Your task to perform on an android device: Open calendar and show me the fourth week of next month Image 0: 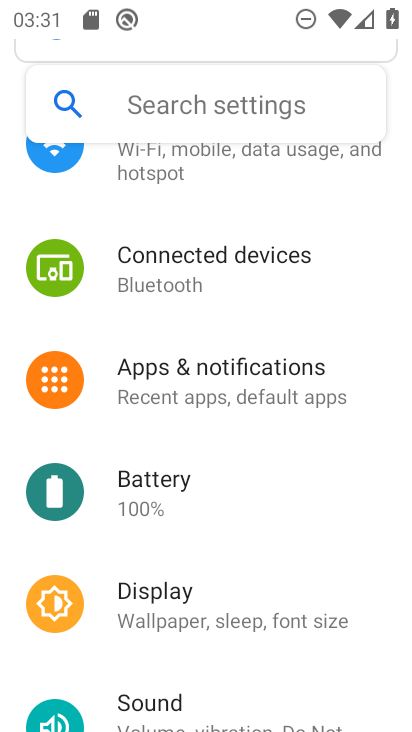
Step 0: press home button
Your task to perform on an android device: Open calendar and show me the fourth week of next month Image 1: 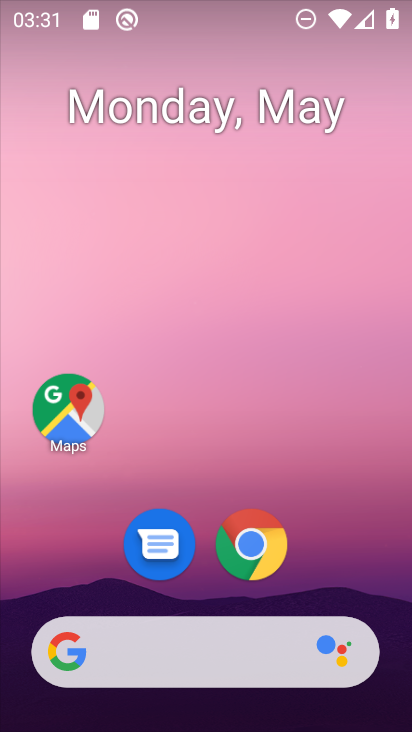
Step 1: drag from (367, 582) to (342, 211)
Your task to perform on an android device: Open calendar and show me the fourth week of next month Image 2: 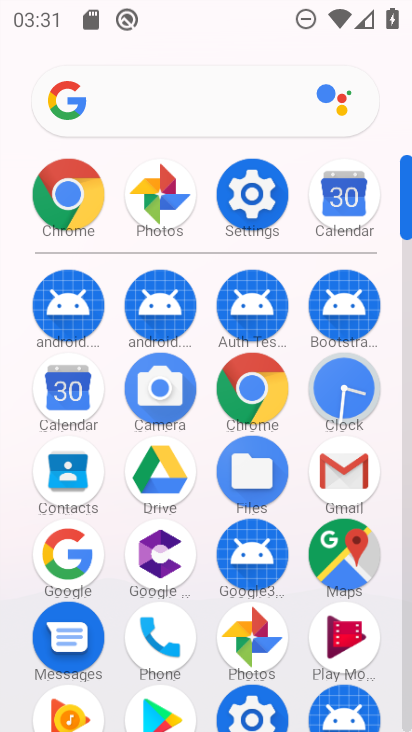
Step 2: click (86, 402)
Your task to perform on an android device: Open calendar and show me the fourth week of next month Image 3: 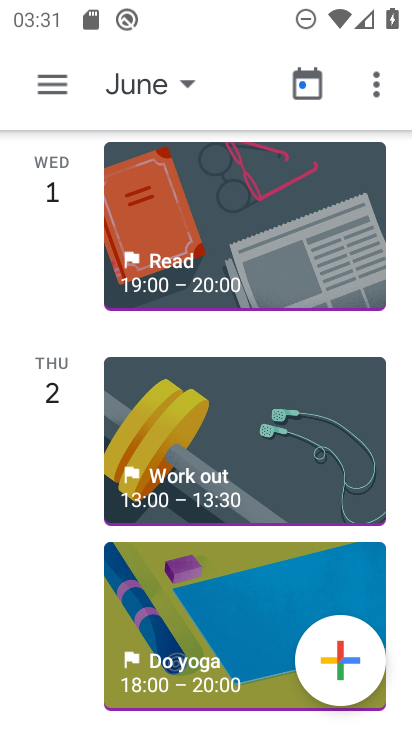
Step 3: click (184, 85)
Your task to perform on an android device: Open calendar and show me the fourth week of next month Image 4: 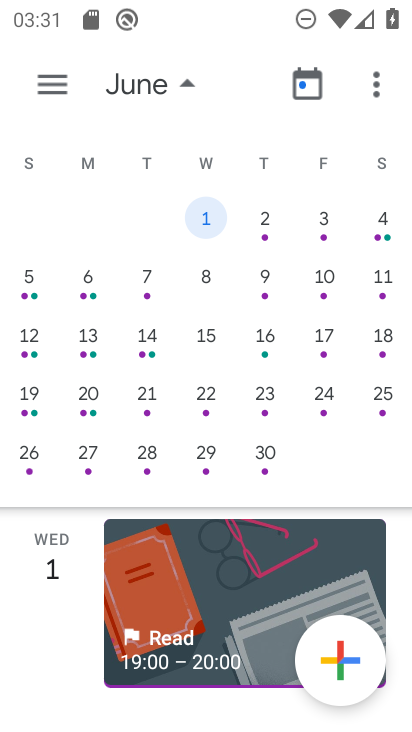
Step 4: click (93, 398)
Your task to perform on an android device: Open calendar and show me the fourth week of next month Image 5: 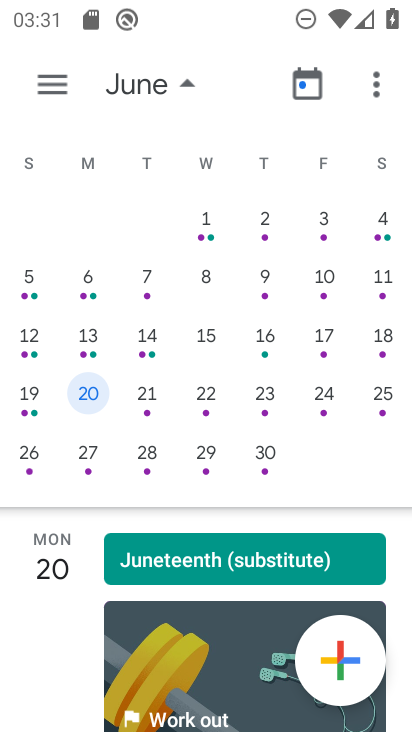
Step 5: task complete